Your task to perform on an android device: set the timer Image 0: 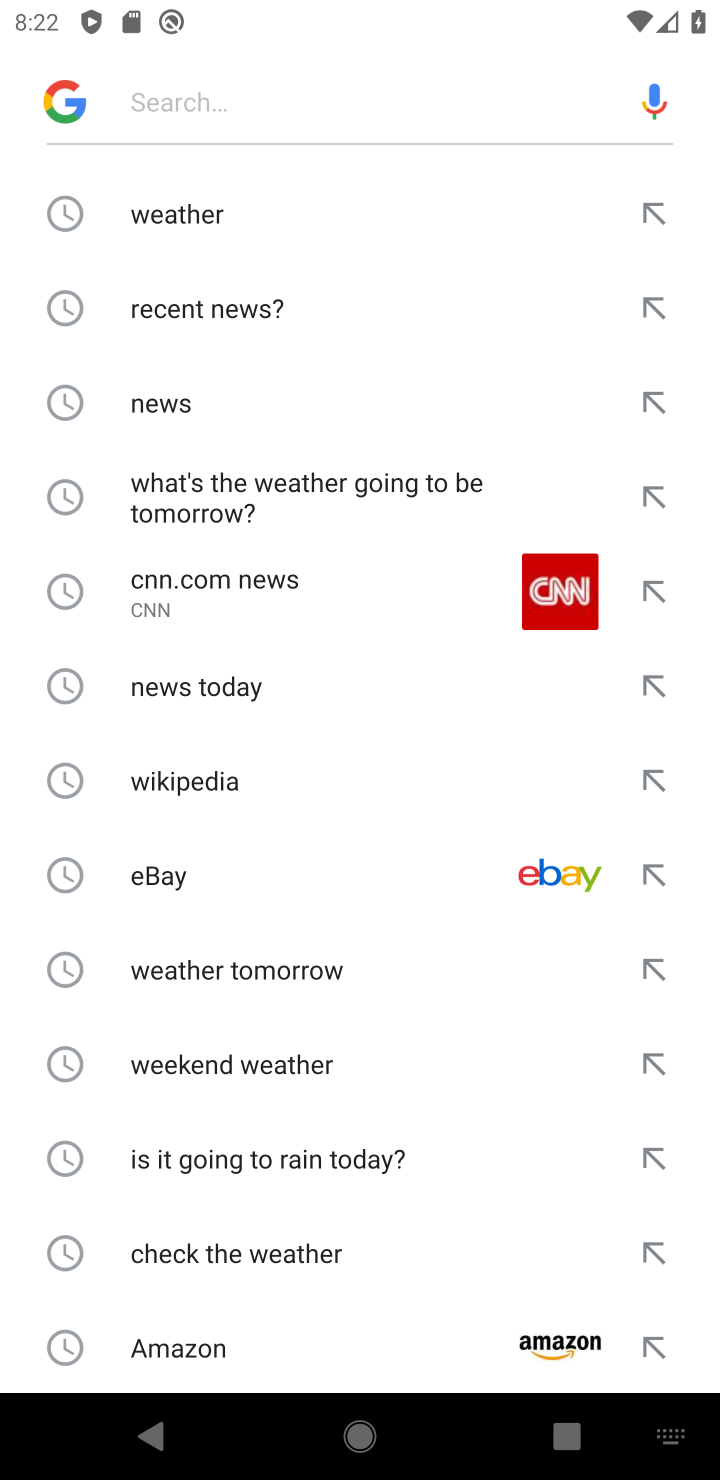
Step 0: press back button
Your task to perform on an android device: set the timer Image 1: 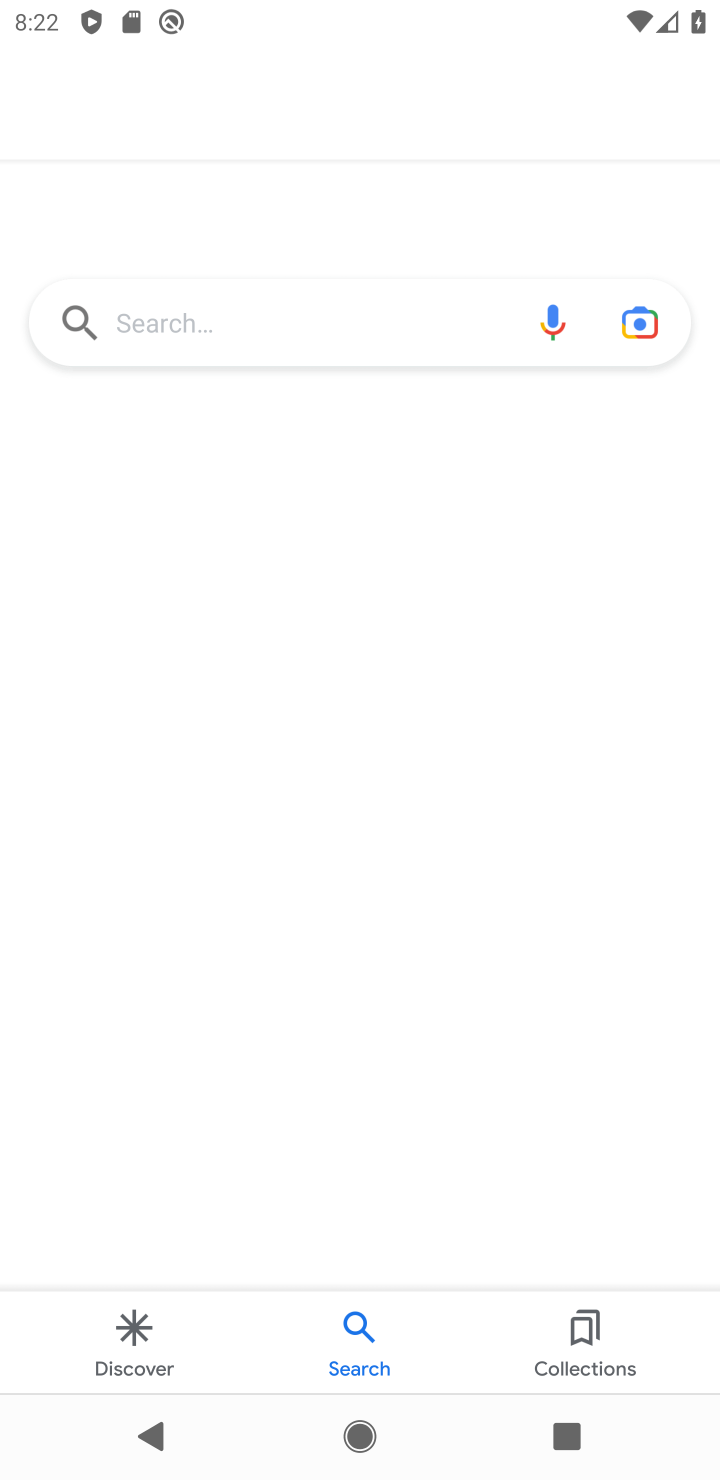
Step 1: press back button
Your task to perform on an android device: set the timer Image 2: 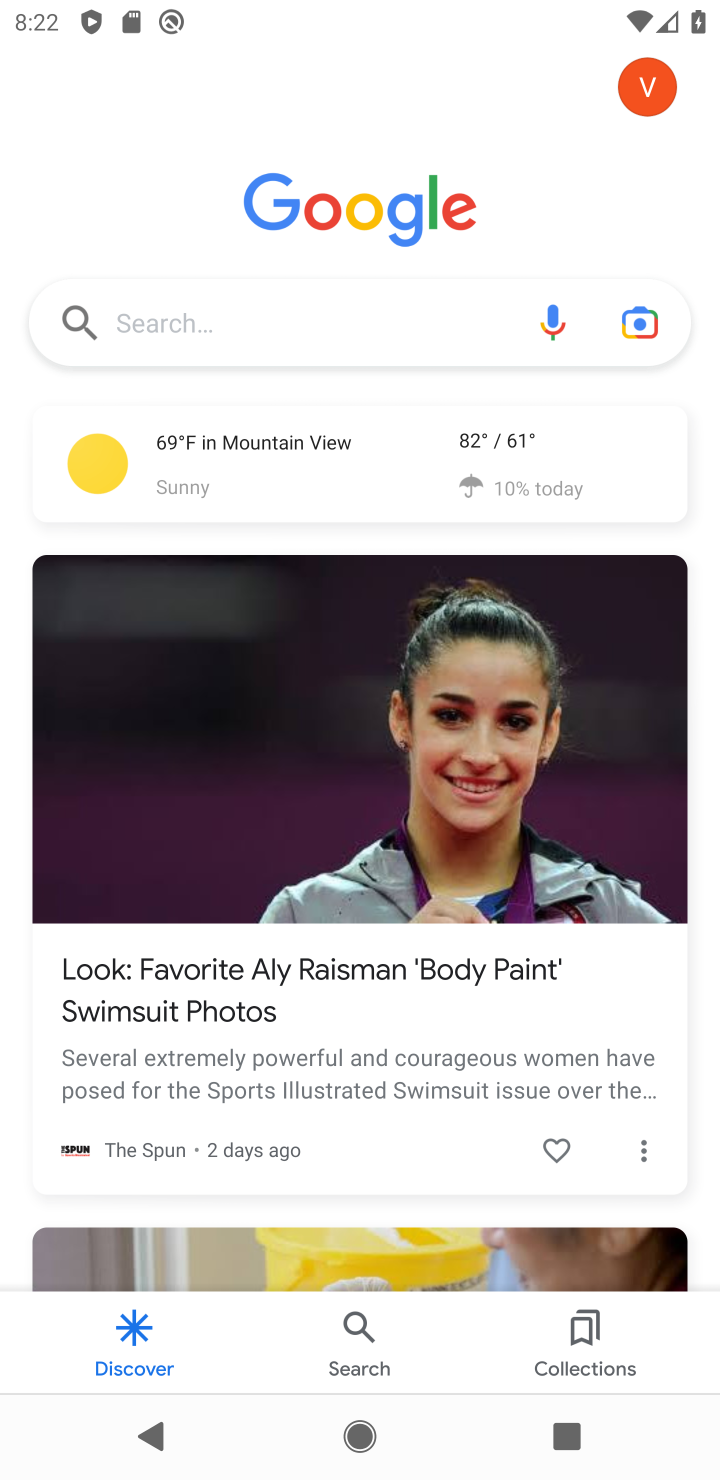
Step 2: press back button
Your task to perform on an android device: set the timer Image 3: 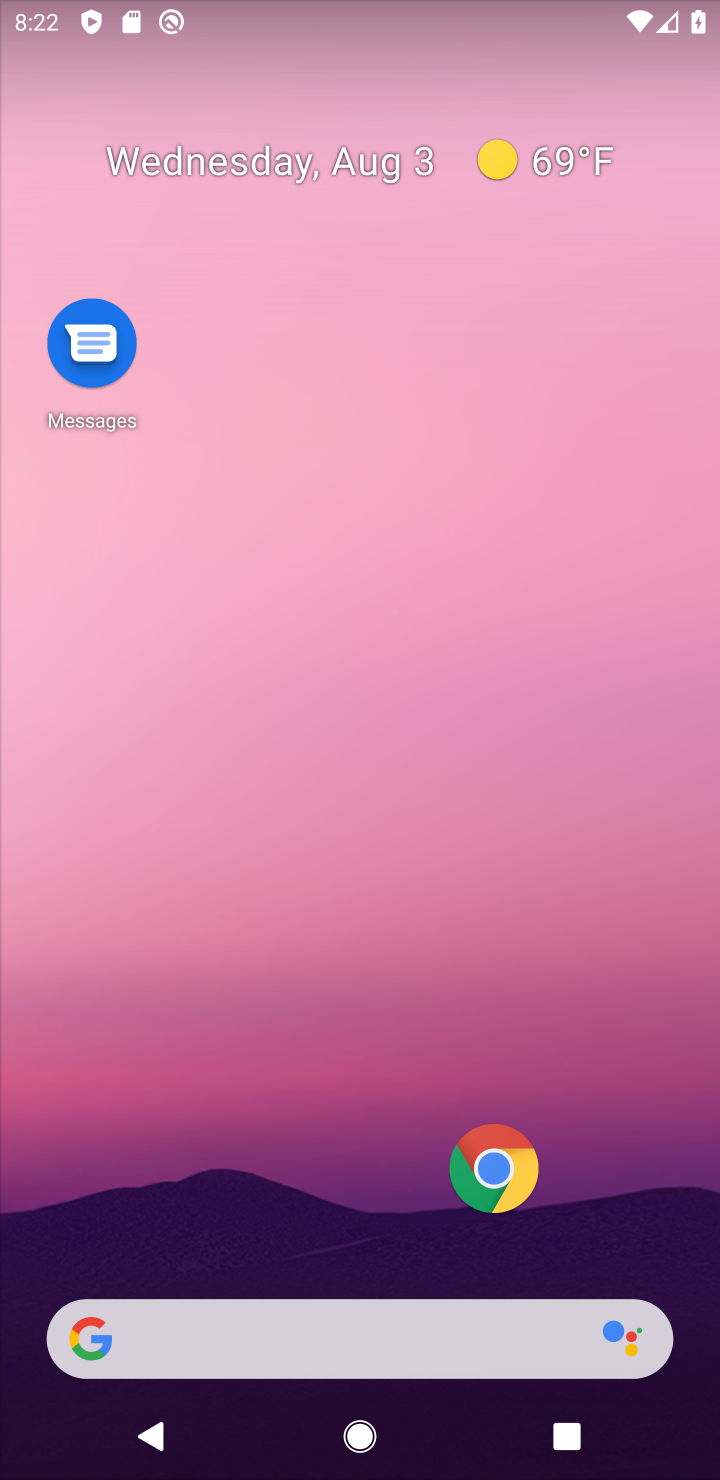
Step 3: press back button
Your task to perform on an android device: set the timer Image 4: 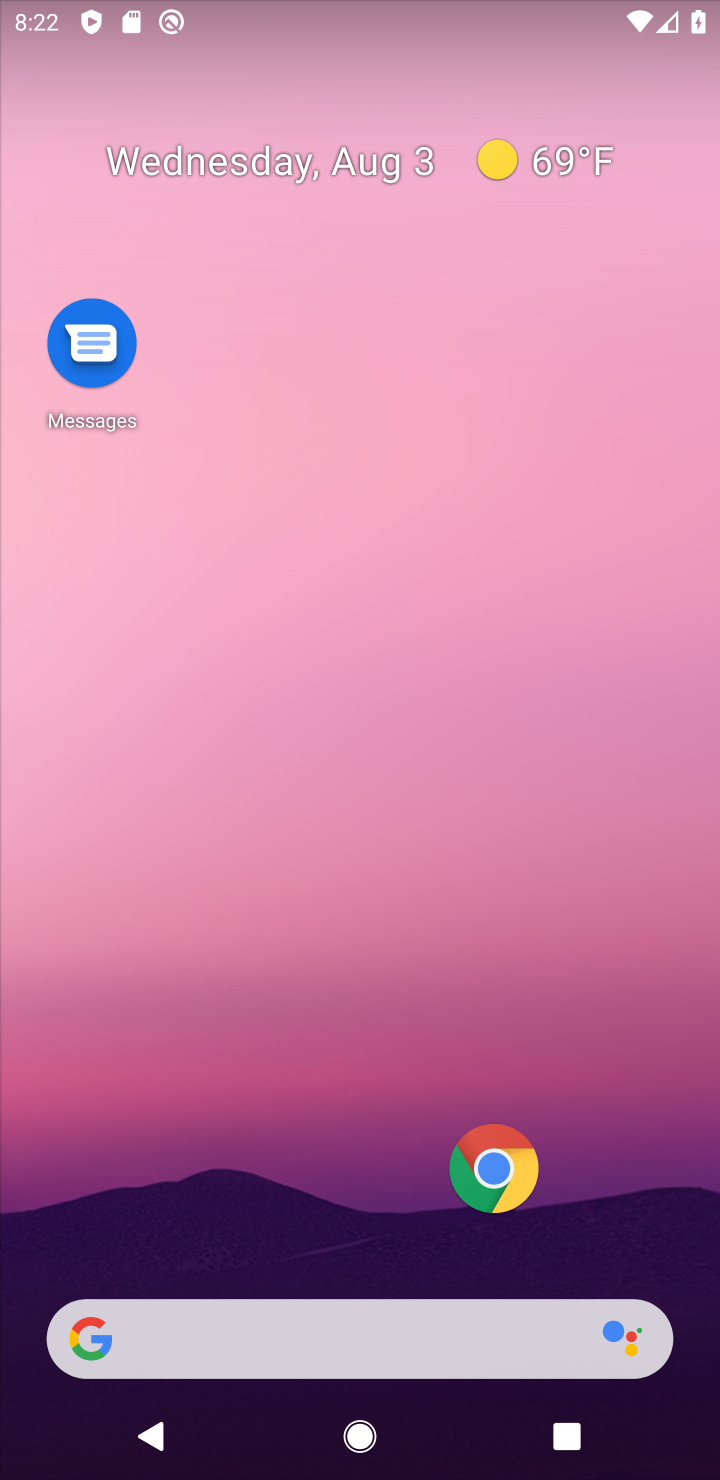
Step 4: drag from (442, 1244) to (482, 13)
Your task to perform on an android device: set the timer Image 5: 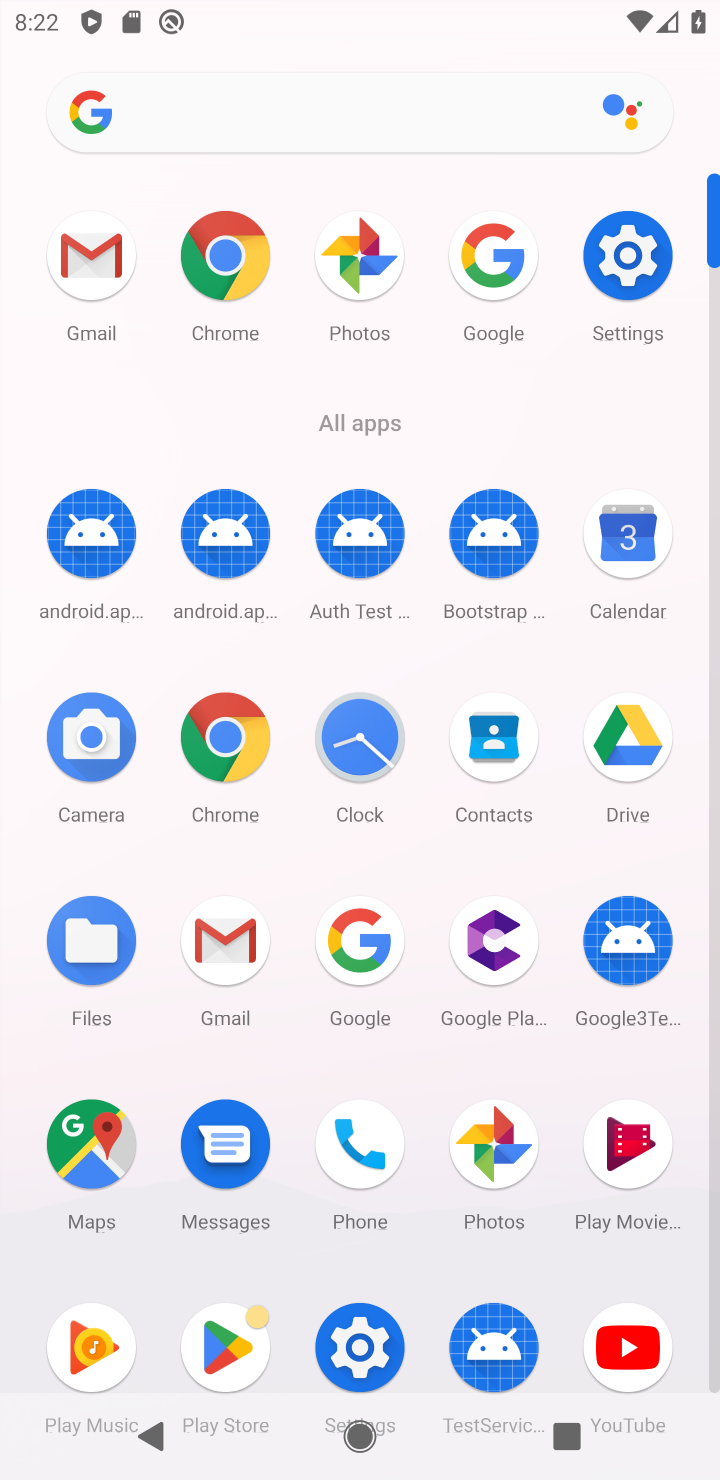
Step 5: click (345, 789)
Your task to perform on an android device: set the timer Image 6: 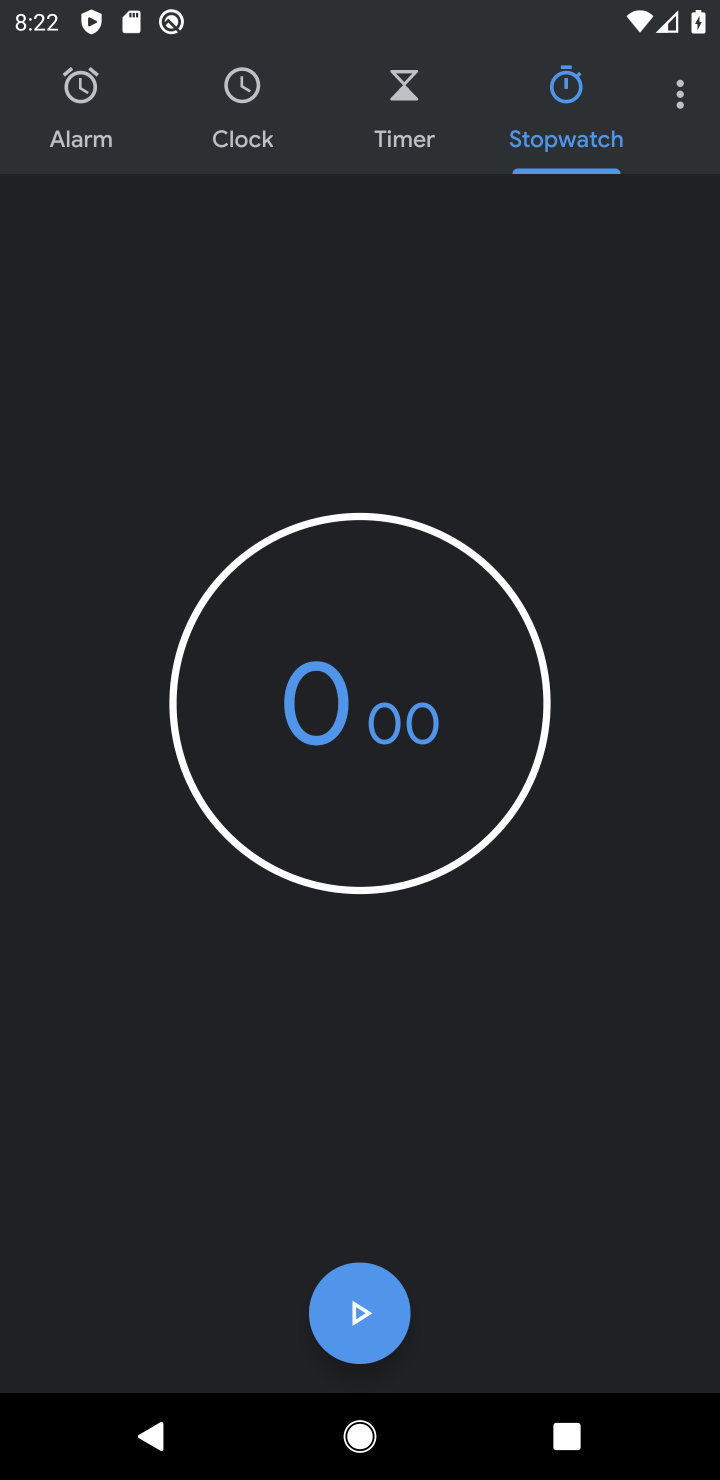
Step 6: click (442, 105)
Your task to perform on an android device: set the timer Image 7: 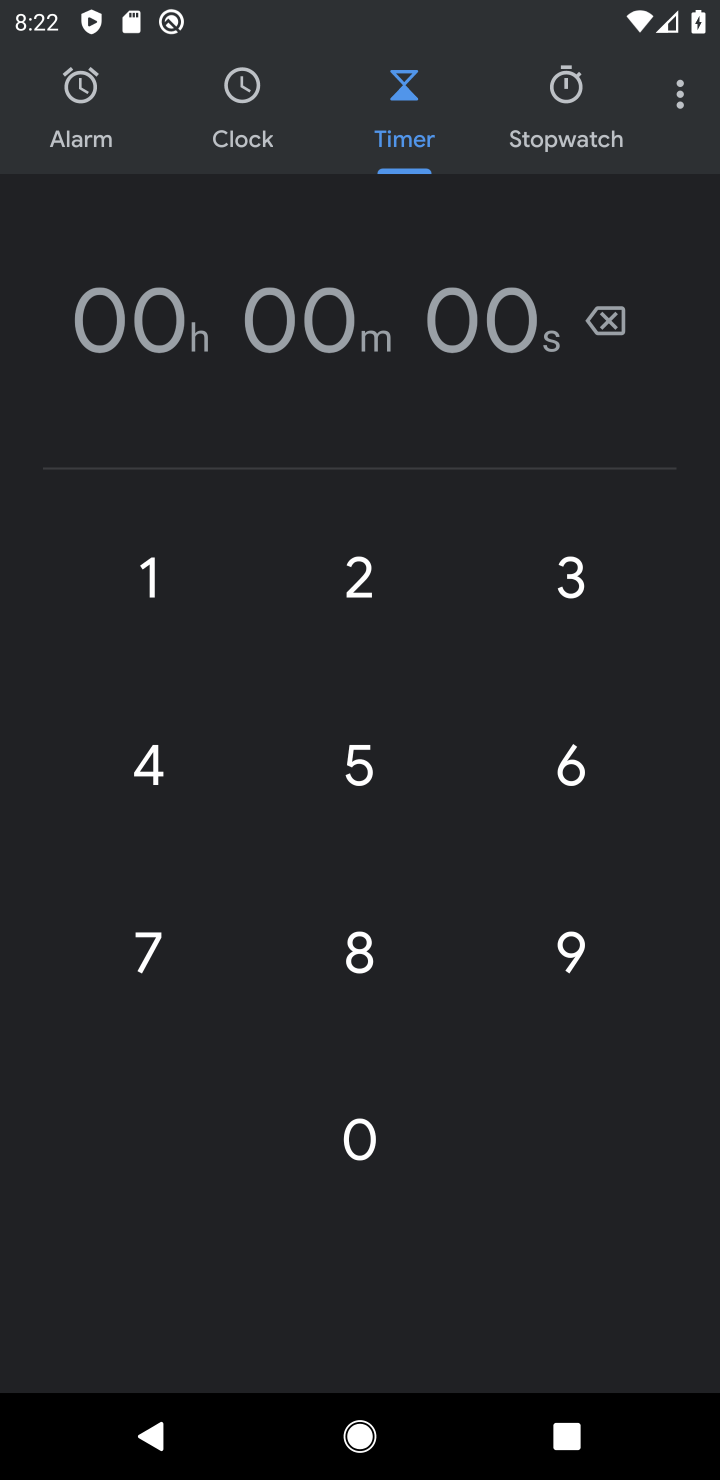
Step 7: task complete